Your task to perform on an android device: install app "Indeed Job Search" Image 0: 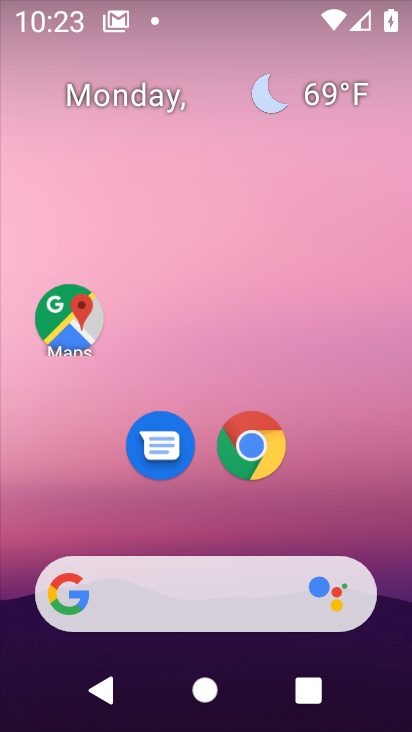
Step 0: drag from (222, 489) to (251, 157)
Your task to perform on an android device: install app "Indeed Job Search" Image 1: 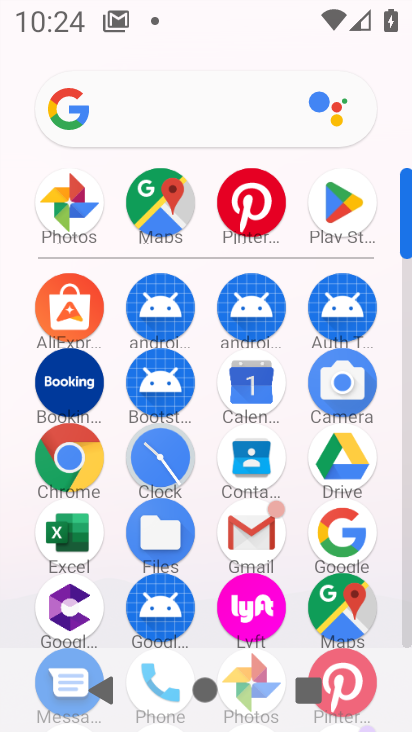
Step 1: click (330, 225)
Your task to perform on an android device: install app "Indeed Job Search" Image 2: 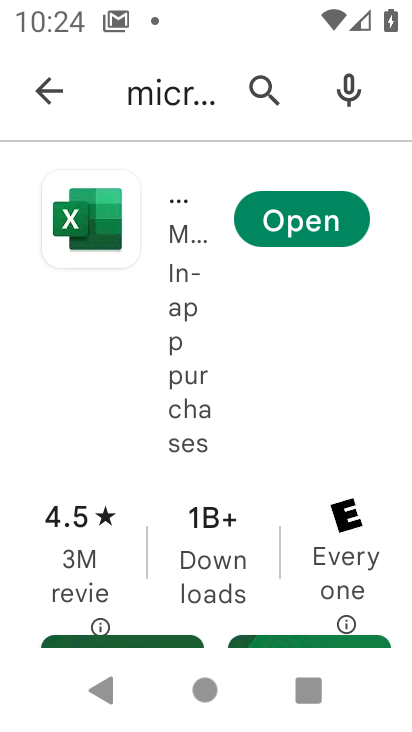
Step 2: click (47, 108)
Your task to perform on an android device: install app "Indeed Job Search" Image 3: 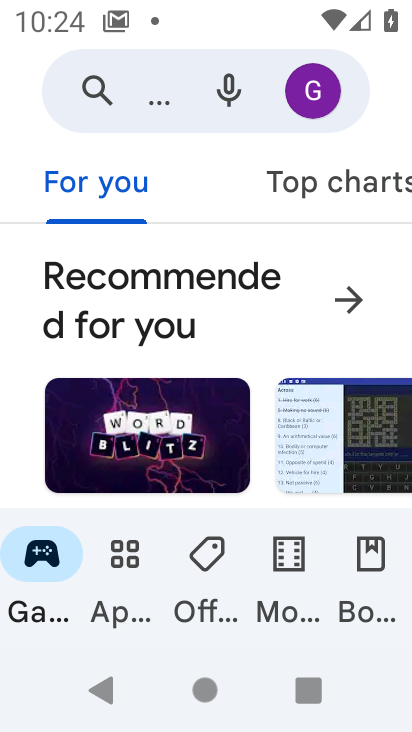
Step 3: click (74, 85)
Your task to perform on an android device: install app "Indeed Job Search" Image 4: 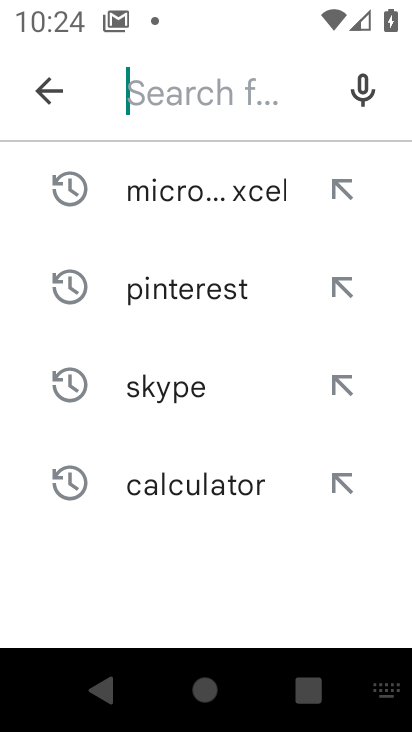
Step 4: type "Indeed Job Search"
Your task to perform on an android device: install app "Indeed Job Search" Image 5: 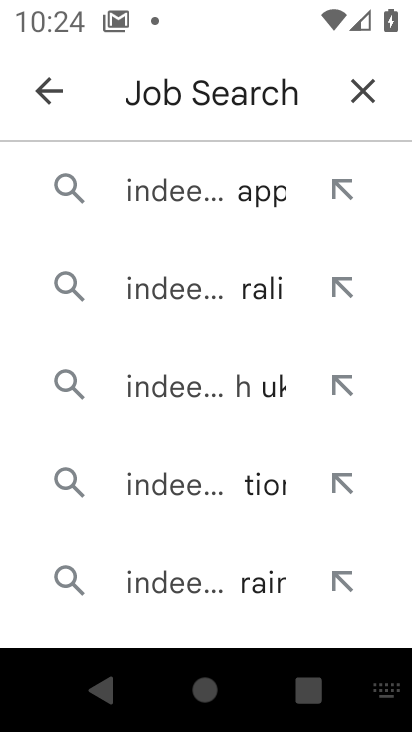
Step 5: click (184, 191)
Your task to perform on an android device: install app "Indeed Job Search" Image 6: 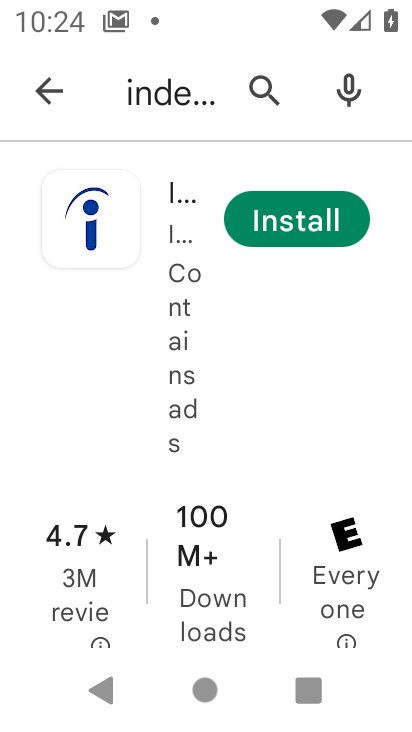
Step 6: click (281, 238)
Your task to perform on an android device: install app "Indeed Job Search" Image 7: 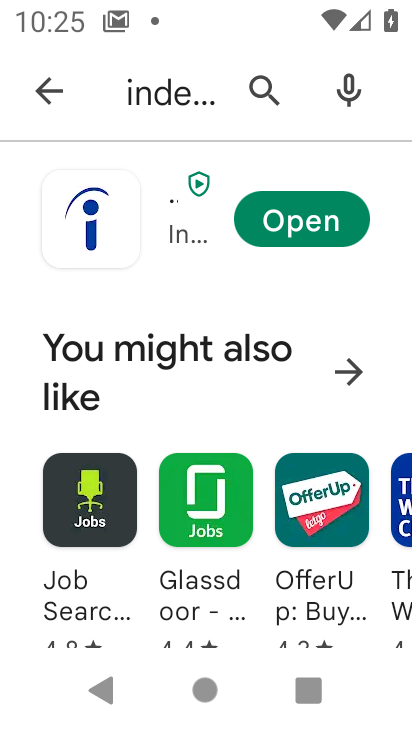
Step 7: task complete